Your task to perform on an android device: open wifi settings Image 0: 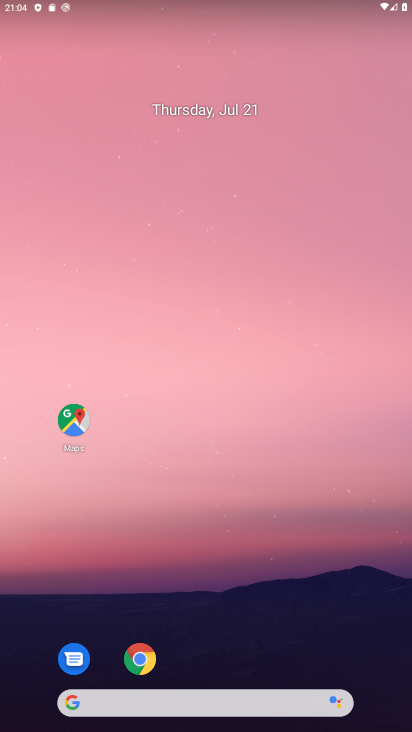
Step 0: drag from (245, 650) to (277, 6)
Your task to perform on an android device: open wifi settings Image 1: 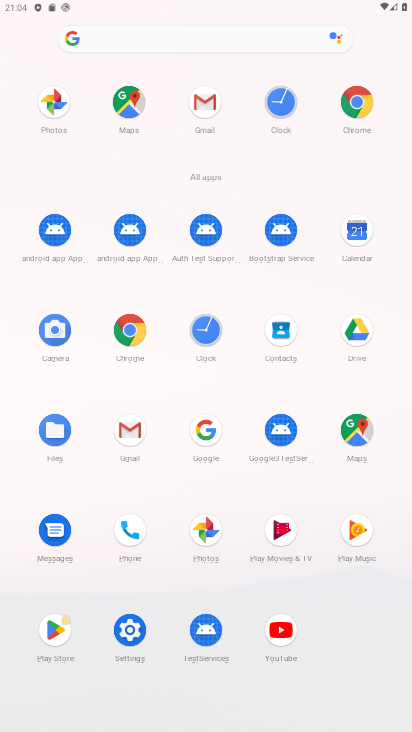
Step 1: click (138, 639)
Your task to perform on an android device: open wifi settings Image 2: 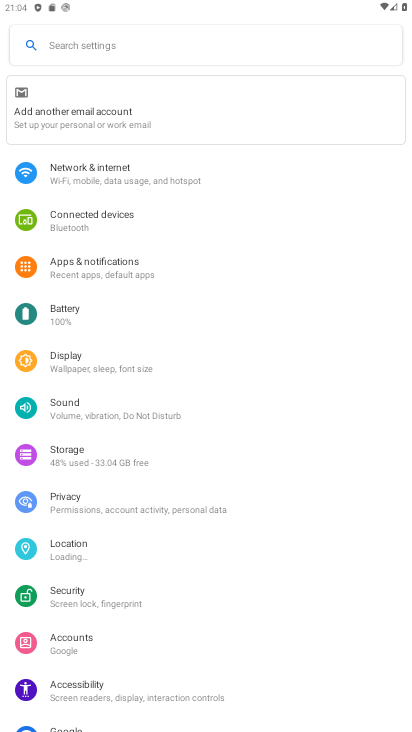
Step 2: click (93, 170)
Your task to perform on an android device: open wifi settings Image 3: 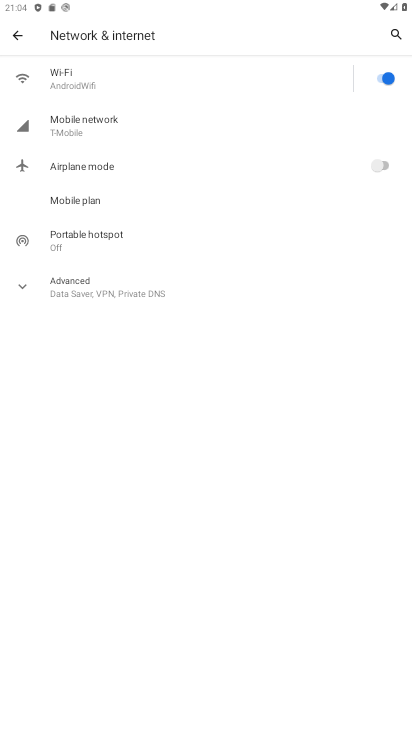
Step 3: click (123, 85)
Your task to perform on an android device: open wifi settings Image 4: 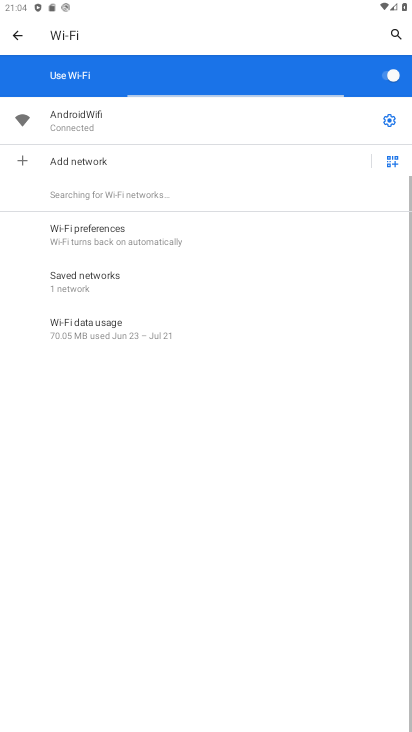
Step 4: task complete